Your task to perform on an android device: toggle priority inbox in the gmail app Image 0: 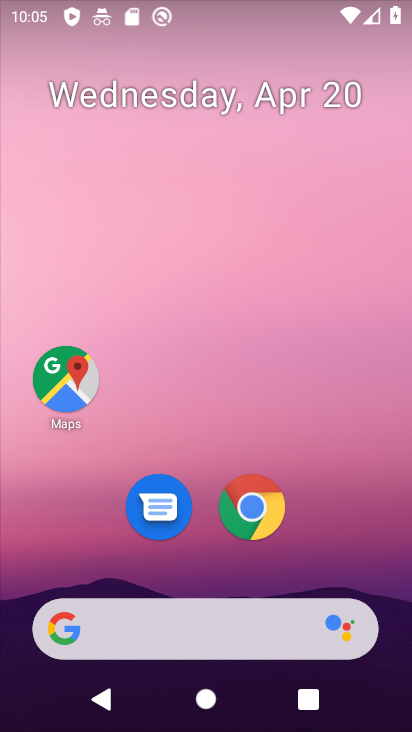
Step 0: drag from (150, 584) to (153, 162)
Your task to perform on an android device: toggle priority inbox in the gmail app Image 1: 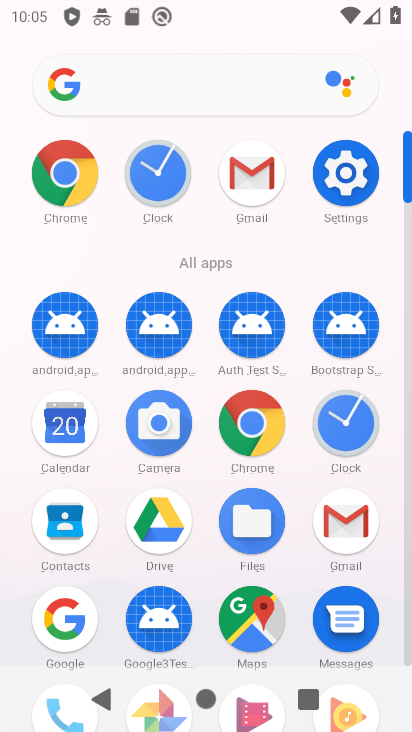
Step 1: click (259, 179)
Your task to perform on an android device: toggle priority inbox in the gmail app Image 2: 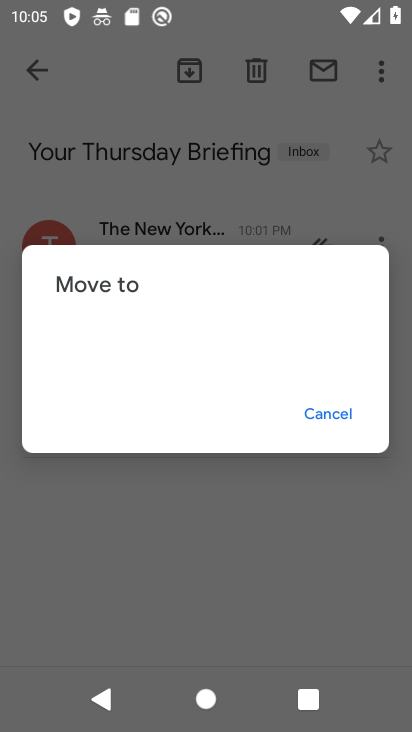
Step 2: click (308, 411)
Your task to perform on an android device: toggle priority inbox in the gmail app Image 3: 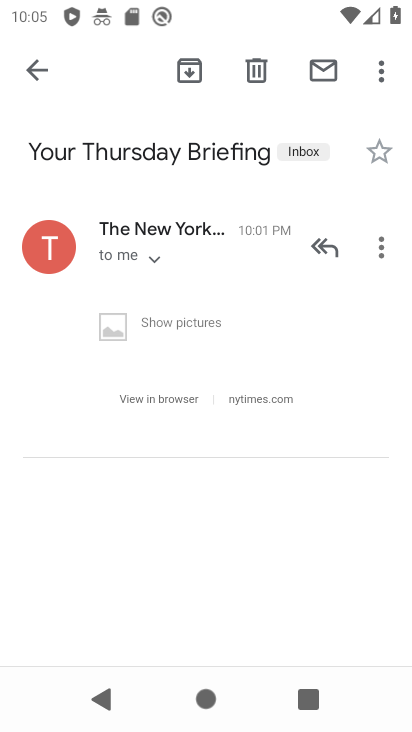
Step 3: click (29, 61)
Your task to perform on an android device: toggle priority inbox in the gmail app Image 4: 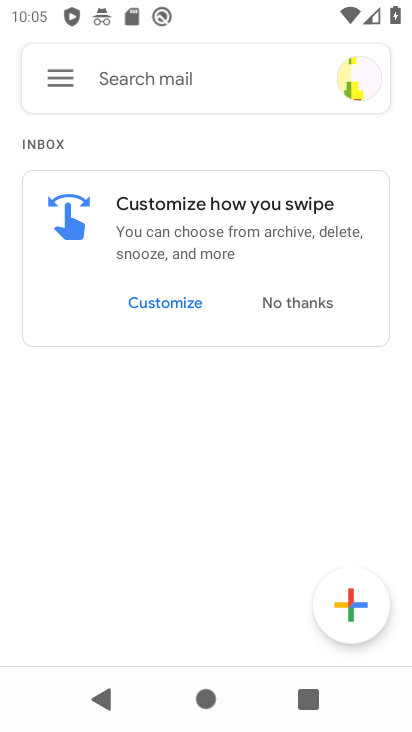
Step 4: click (46, 72)
Your task to perform on an android device: toggle priority inbox in the gmail app Image 5: 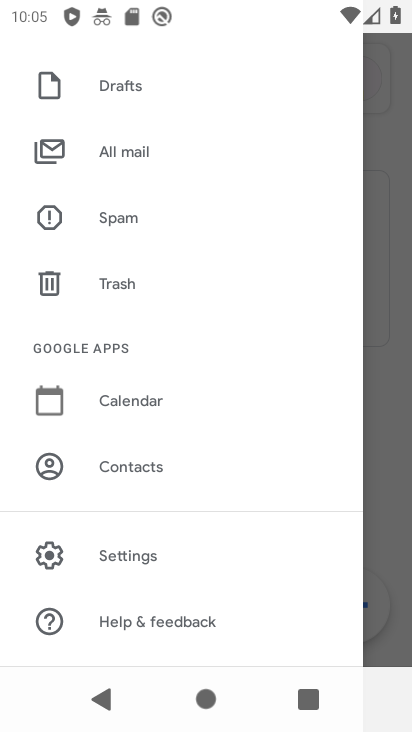
Step 5: click (138, 561)
Your task to perform on an android device: toggle priority inbox in the gmail app Image 6: 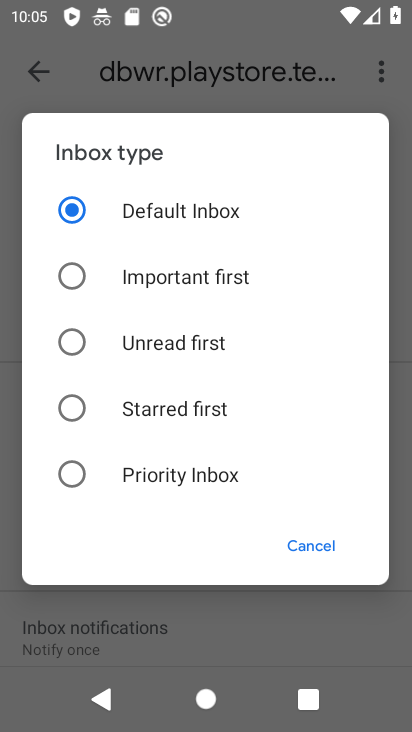
Step 6: click (68, 473)
Your task to perform on an android device: toggle priority inbox in the gmail app Image 7: 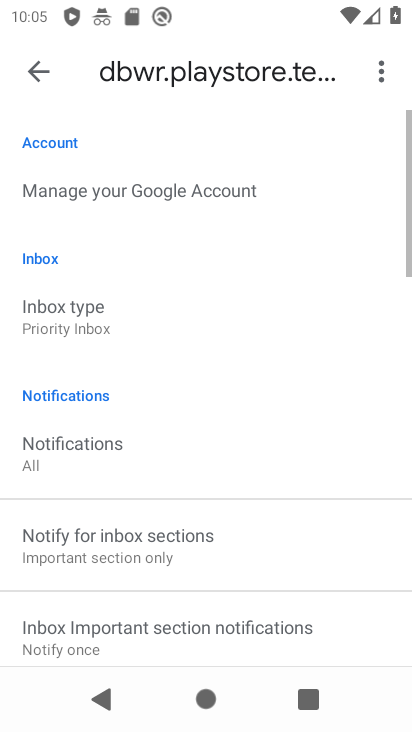
Step 7: task complete